Your task to perform on an android device: Go to settings Image 0: 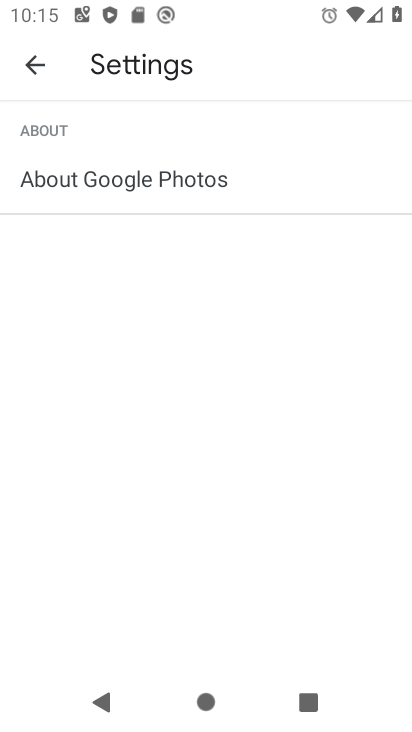
Step 0: press home button
Your task to perform on an android device: Go to settings Image 1: 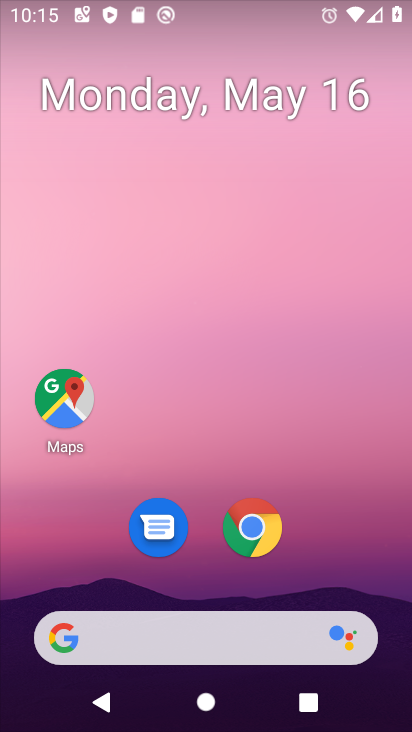
Step 1: drag from (308, 560) to (355, 15)
Your task to perform on an android device: Go to settings Image 2: 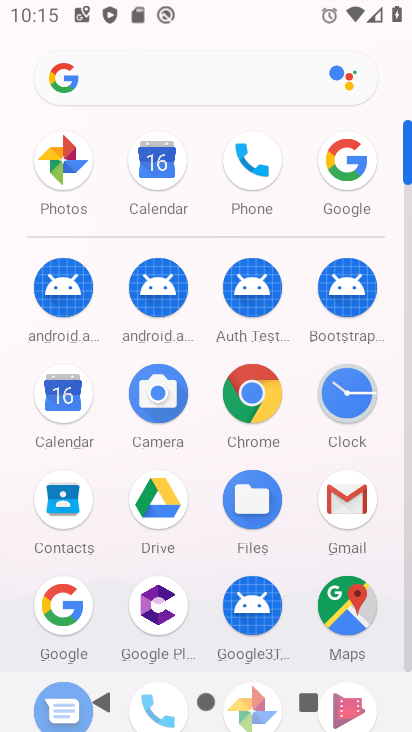
Step 2: click (409, 456)
Your task to perform on an android device: Go to settings Image 3: 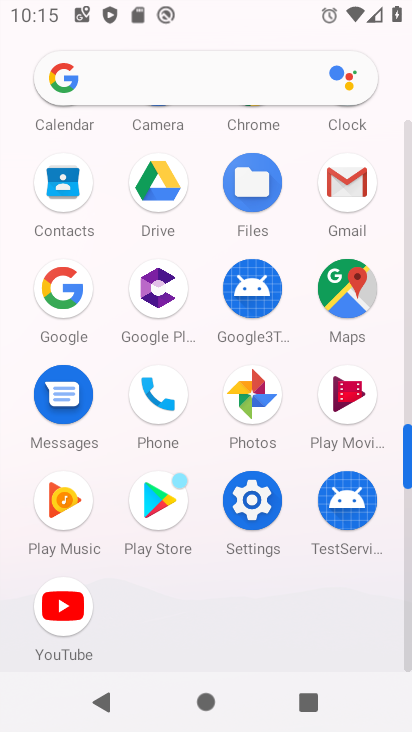
Step 3: click (258, 500)
Your task to perform on an android device: Go to settings Image 4: 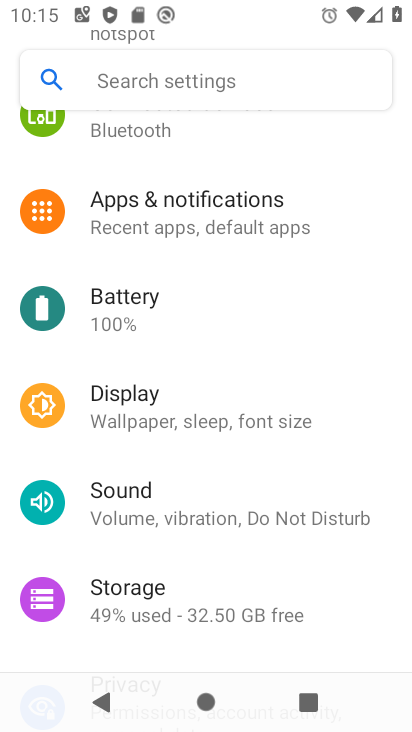
Step 4: task complete